Your task to perform on an android device: Go to privacy settings Image 0: 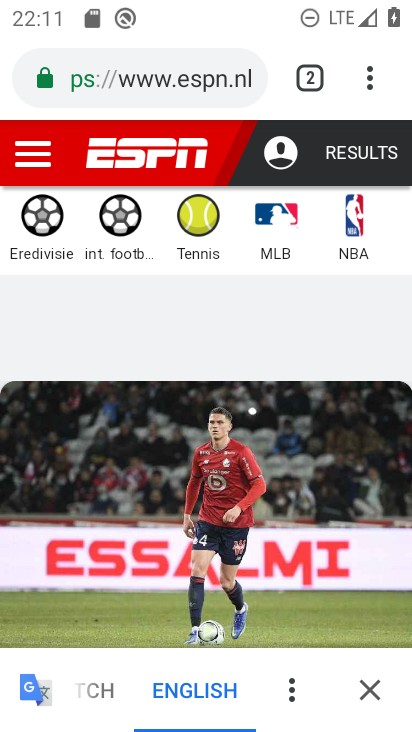
Step 0: drag from (213, 629) to (208, 191)
Your task to perform on an android device: Go to privacy settings Image 1: 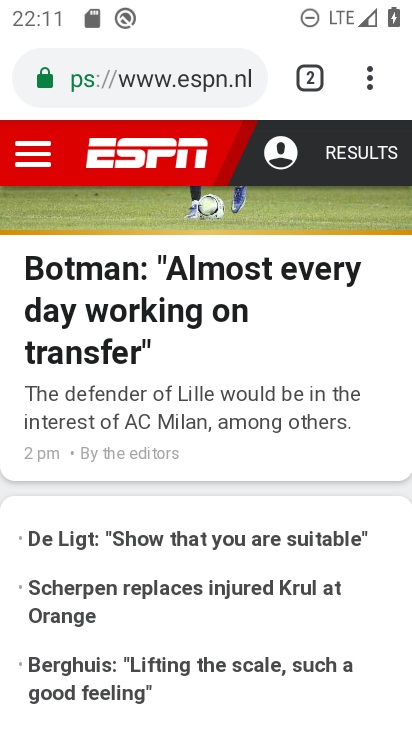
Step 1: press home button
Your task to perform on an android device: Go to privacy settings Image 2: 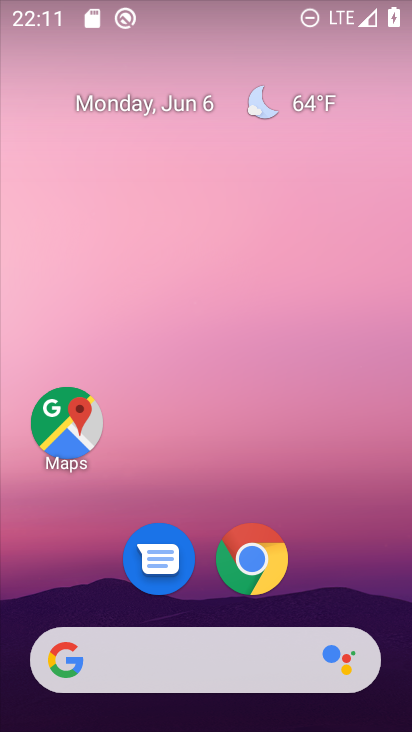
Step 2: drag from (245, 728) to (241, 15)
Your task to perform on an android device: Go to privacy settings Image 3: 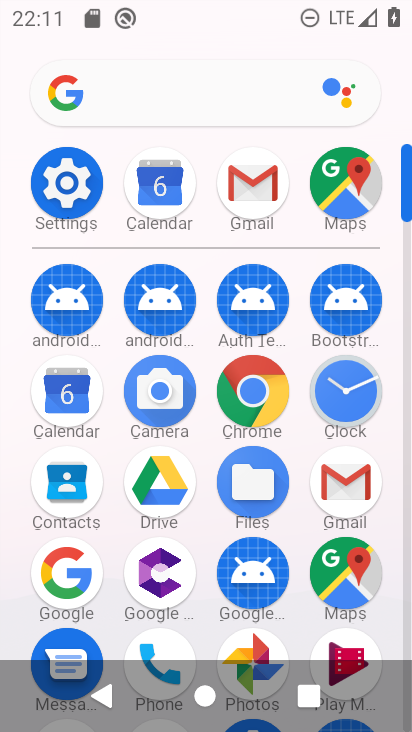
Step 3: click (58, 166)
Your task to perform on an android device: Go to privacy settings Image 4: 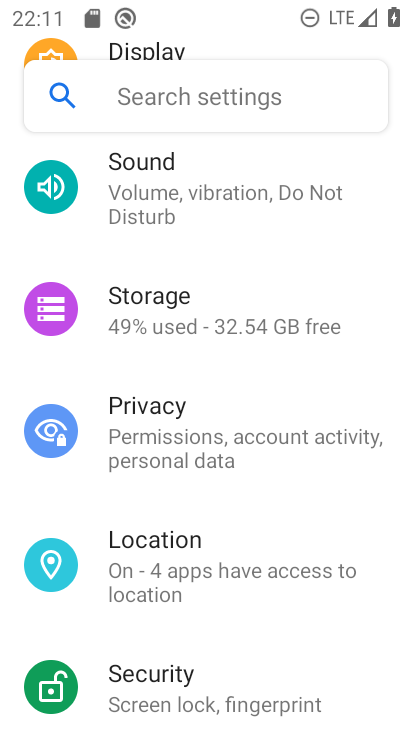
Step 4: click (159, 426)
Your task to perform on an android device: Go to privacy settings Image 5: 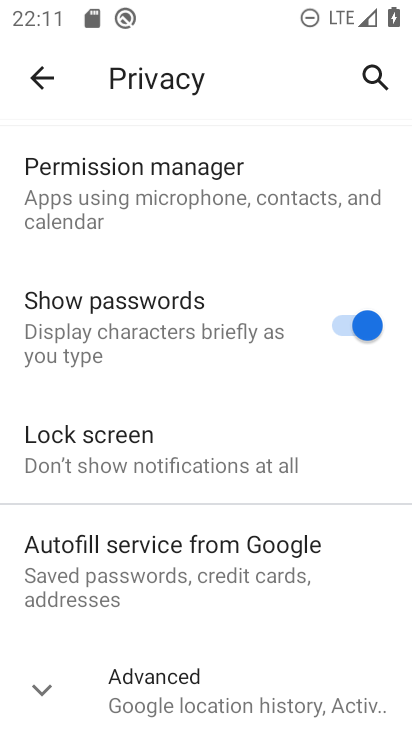
Step 5: task complete